Your task to perform on an android device: turn off javascript in the chrome app Image 0: 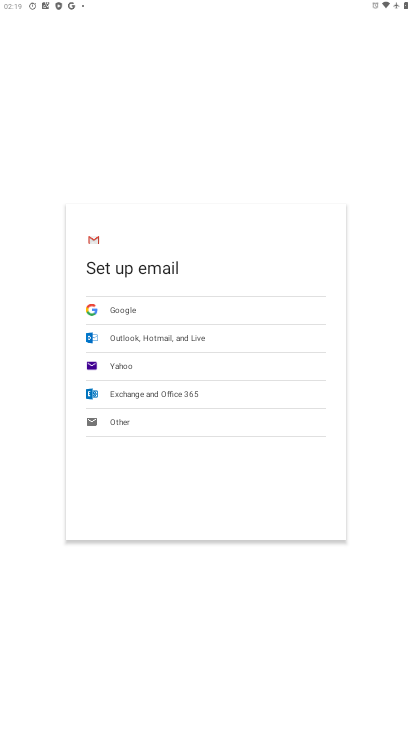
Step 0: press home button
Your task to perform on an android device: turn off javascript in the chrome app Image 1: 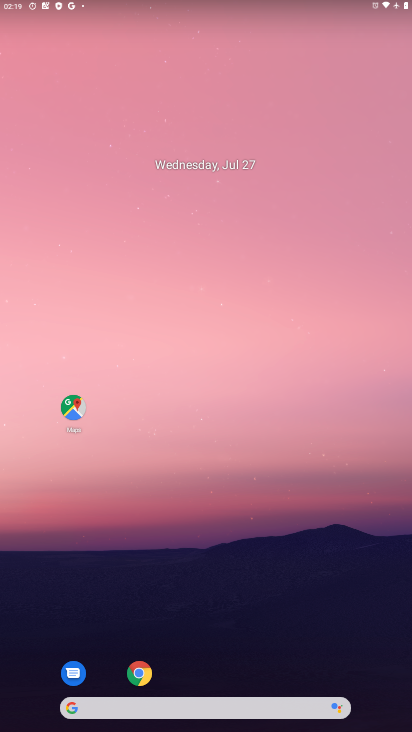
Step 1: click (149, 675)
Your task to perform on an android device: turn off javascript in the chrome app Image 2: 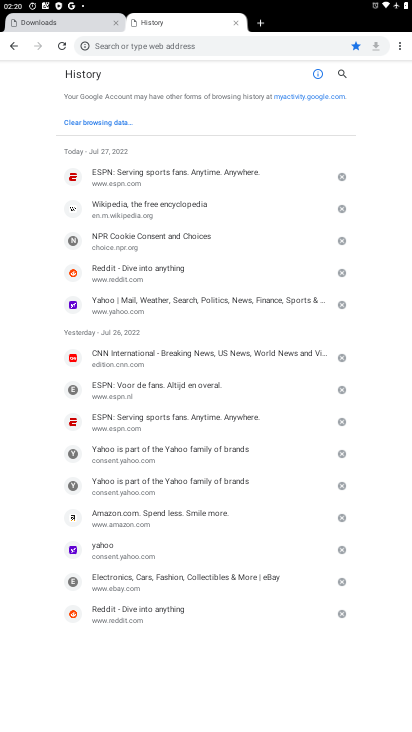
Step 2: drag from (400, 44) to (319, 209)
Your task to perform on an android device: turn off javascript in the chrome app Image 3: 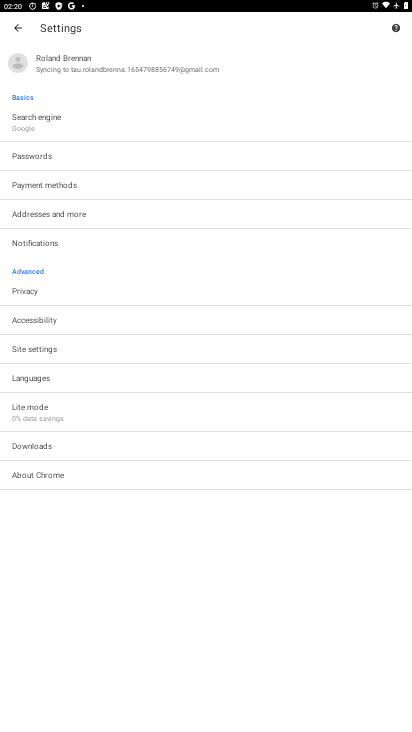
Step 3: click (31, 351)
Your task to perform on an android device: turn off javascript in the chrome app Image 4: 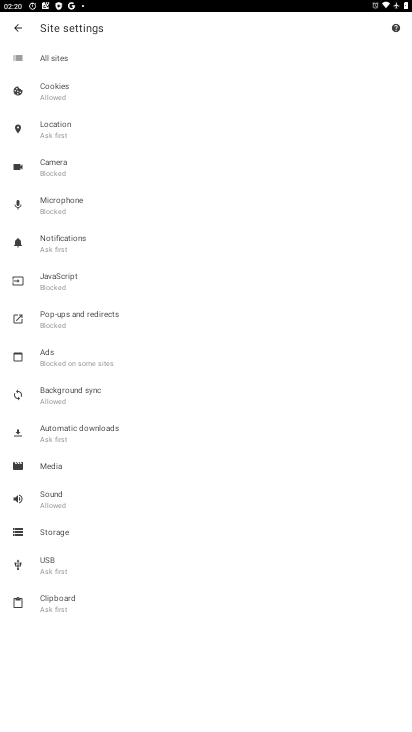
Step 4: click (63, 286)
Your task to perform on an android device: turn off javascript in the chrome app Image 5: 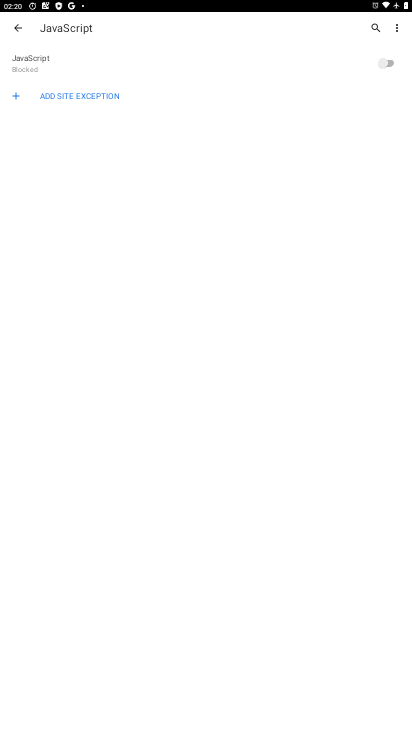
Step 5: task complete